Your task to perform on an android device: turn notification dots on Image 0: 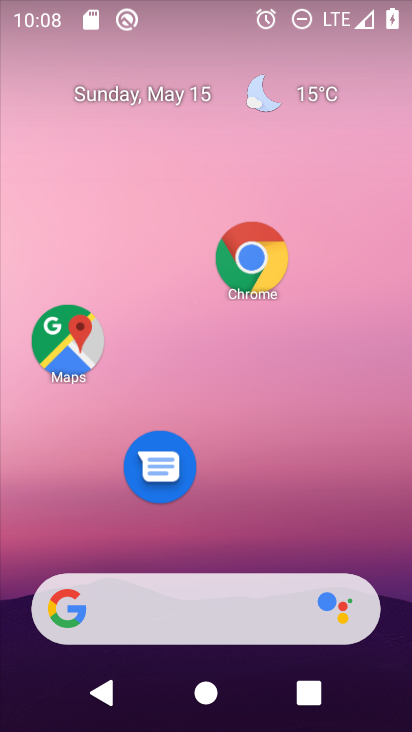
Step 0: drag from (237, 514) to (225, 13)
Your task to perform on an android device: turn notification dots on Image 1: 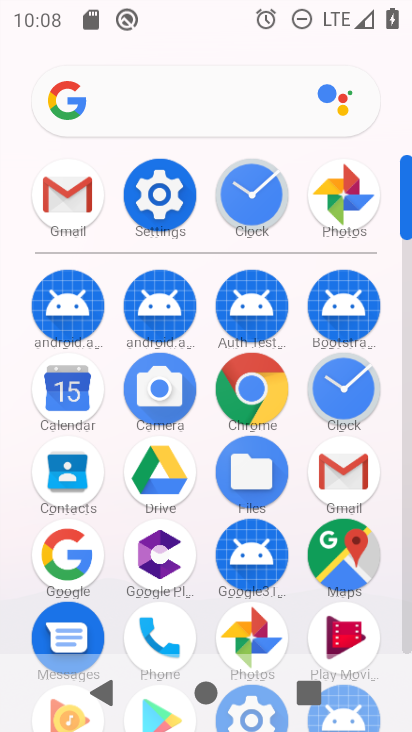
Step 1: click (169, 187)
Your task to perform on an android device: turn notification dots on Image 2: 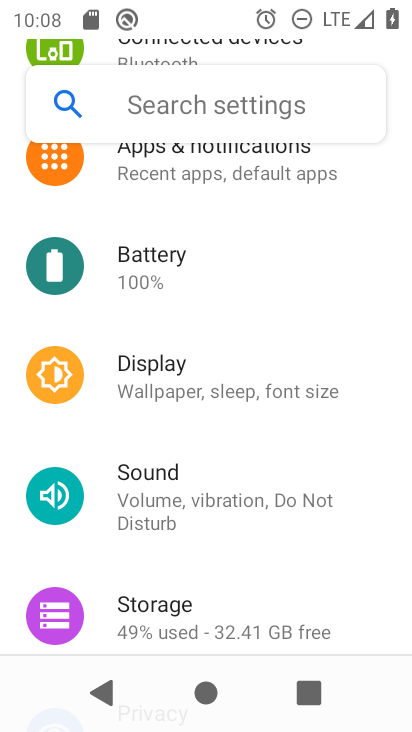
Step 2: click (198, 179)
Your task to perform on an android device: turn notification dots on Image 3: 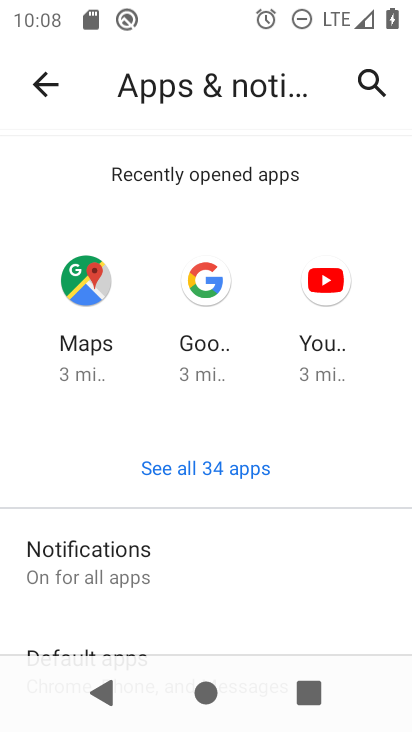
Step 3: drag from (220, 552) to (252, 47)
Your task to perform on an android device: turn notification dots on Image 4: 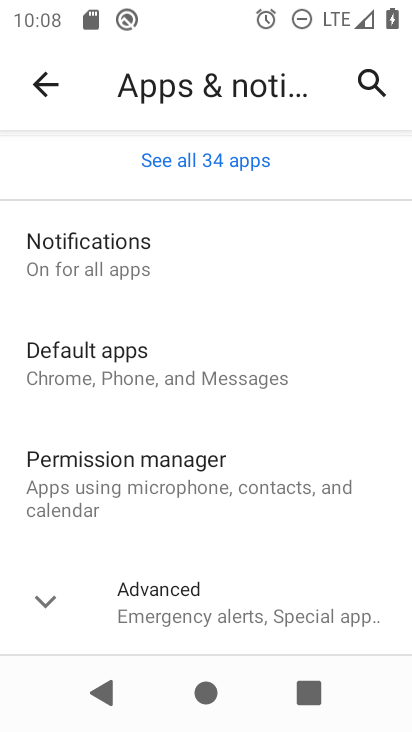
Step 4: click (182, 592)
Your task to perform on an android device: turn notification dots on Image 5: 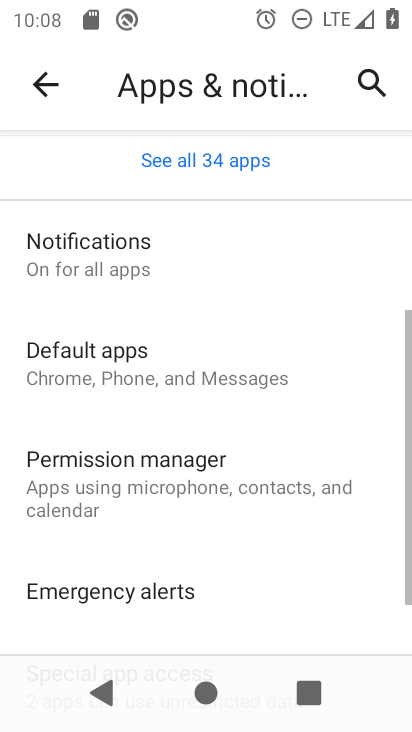
Step 5: drag from (182, 592) to (230, 178)
Your task to perform on an android device: turn notification dots on Image 6: 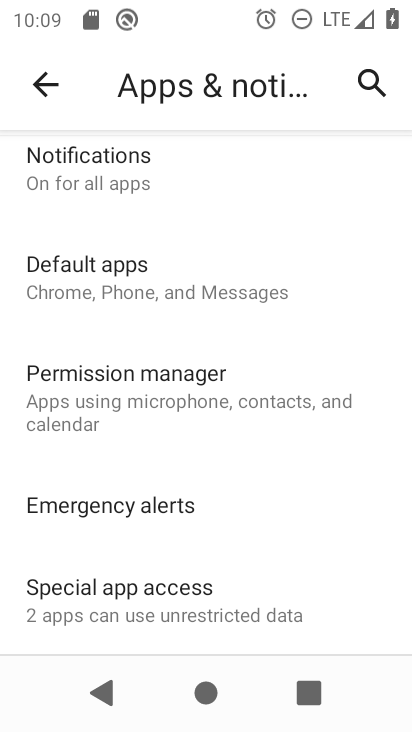
Step 6: click (130, 181)
Your task to perform on an android device: turn notification dots on Image 7: 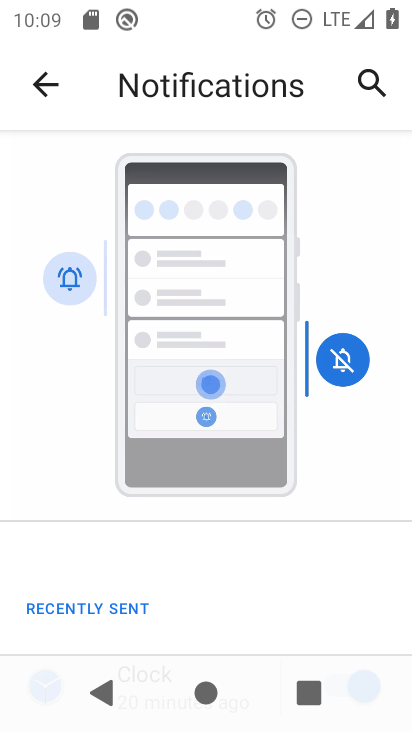
Step 7: drag from (158, 601) to (219, 73)
Your task to perform on an android device: turn notification dots on Image 8: 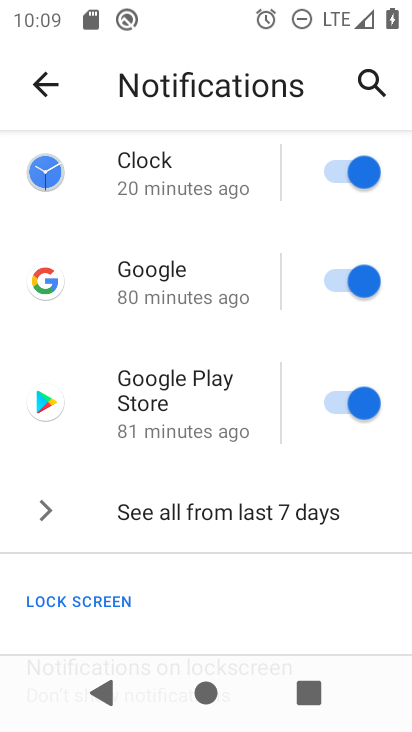
Step 8: drag from (205, 606) to (225, 170)
Your task to perform on an android device: turn notification dots on Image 9: 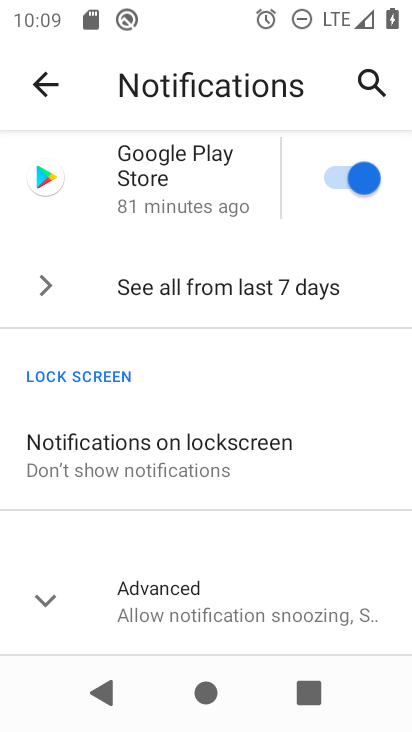
Step 9: click (237, 603)
Your task to perform on an android device: turn notification dots on Image 10: 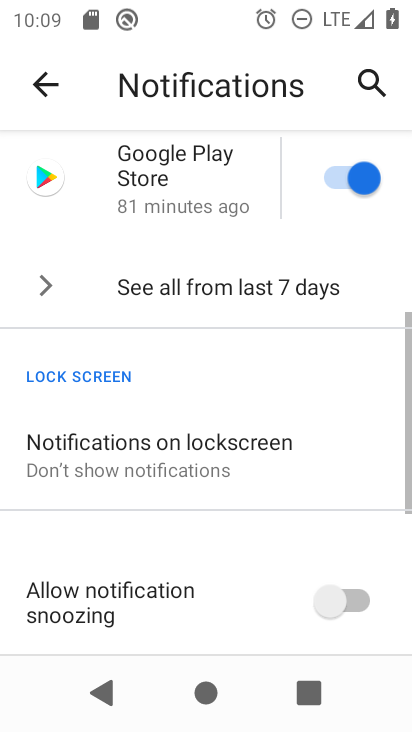
Step 10: task complete